Your task to perform on an android device: manage bookmarks in the chrome app Image 0: 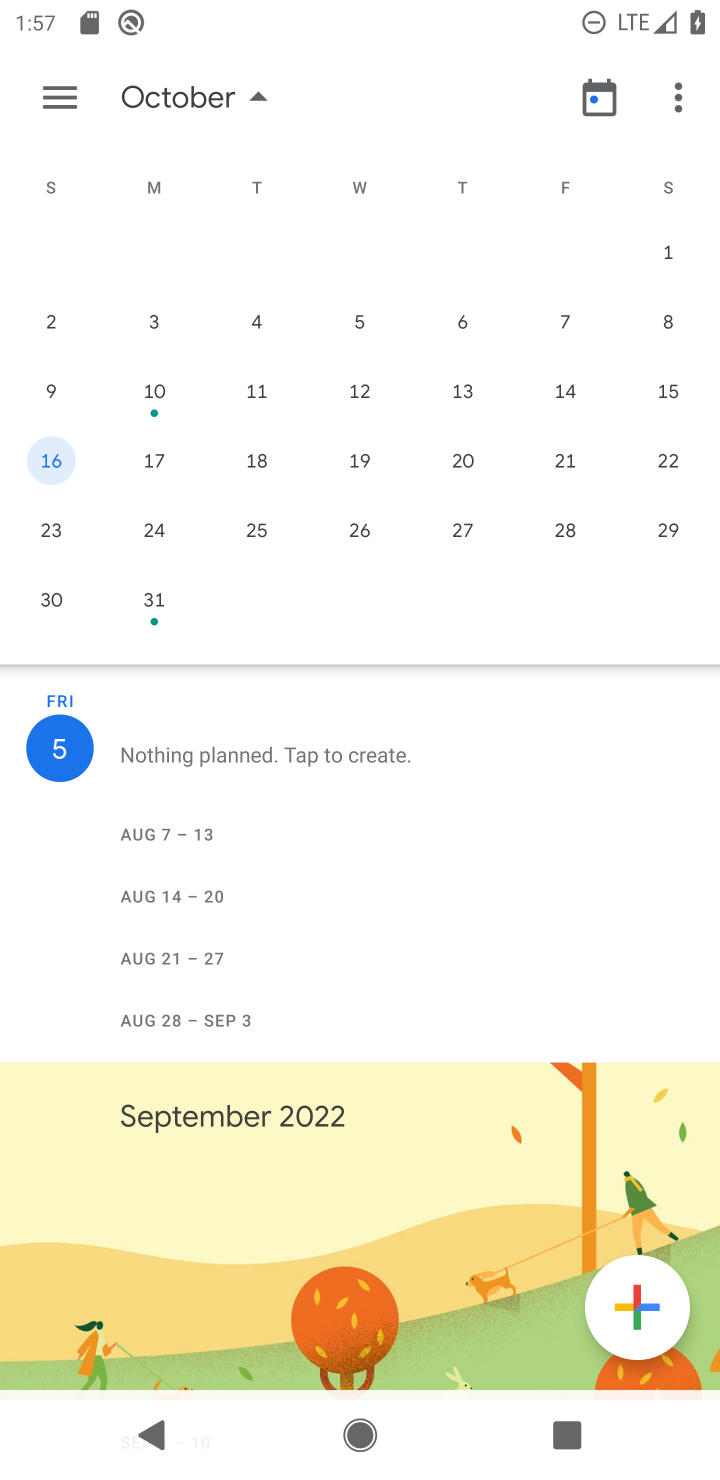
Step 0: press home button
Your task to perform on an android device: manage bookmarks in the chrome app Image 1: 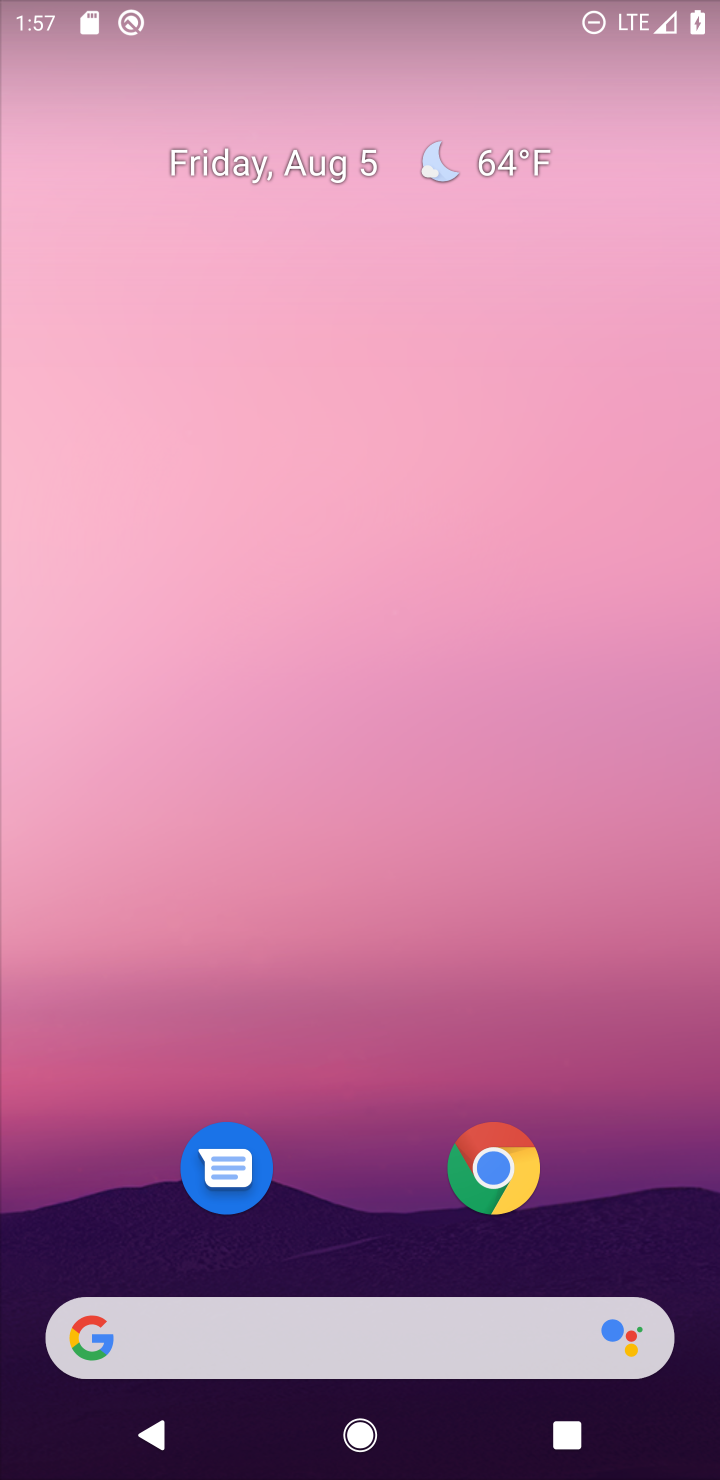
Step 1: drag from (628, 1127) to (518, 8)
Your task to perform on an android device: manage bookmarks in the chrome app Image 2: 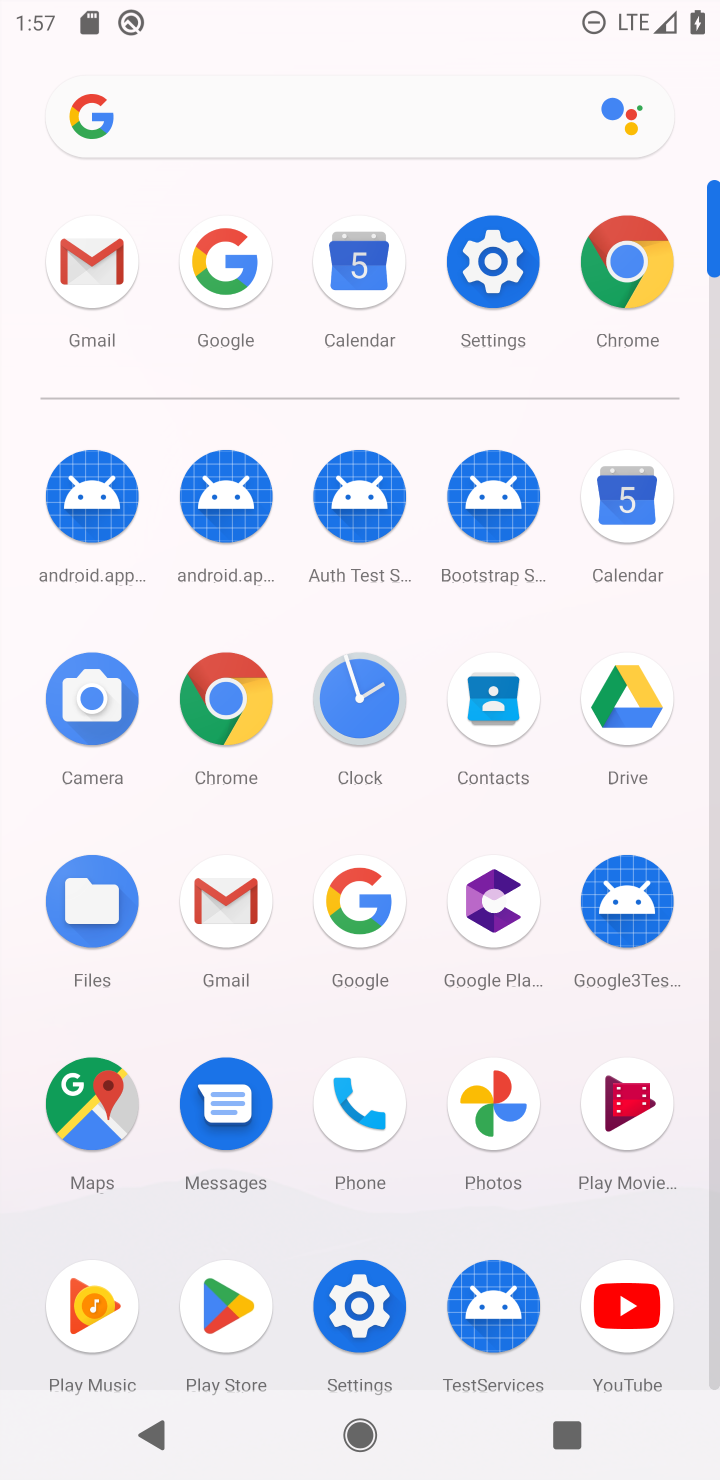
Step 2: click (608, 260)
Your task to perform on an android device: manage bookmarks in the chrome app Image 3: 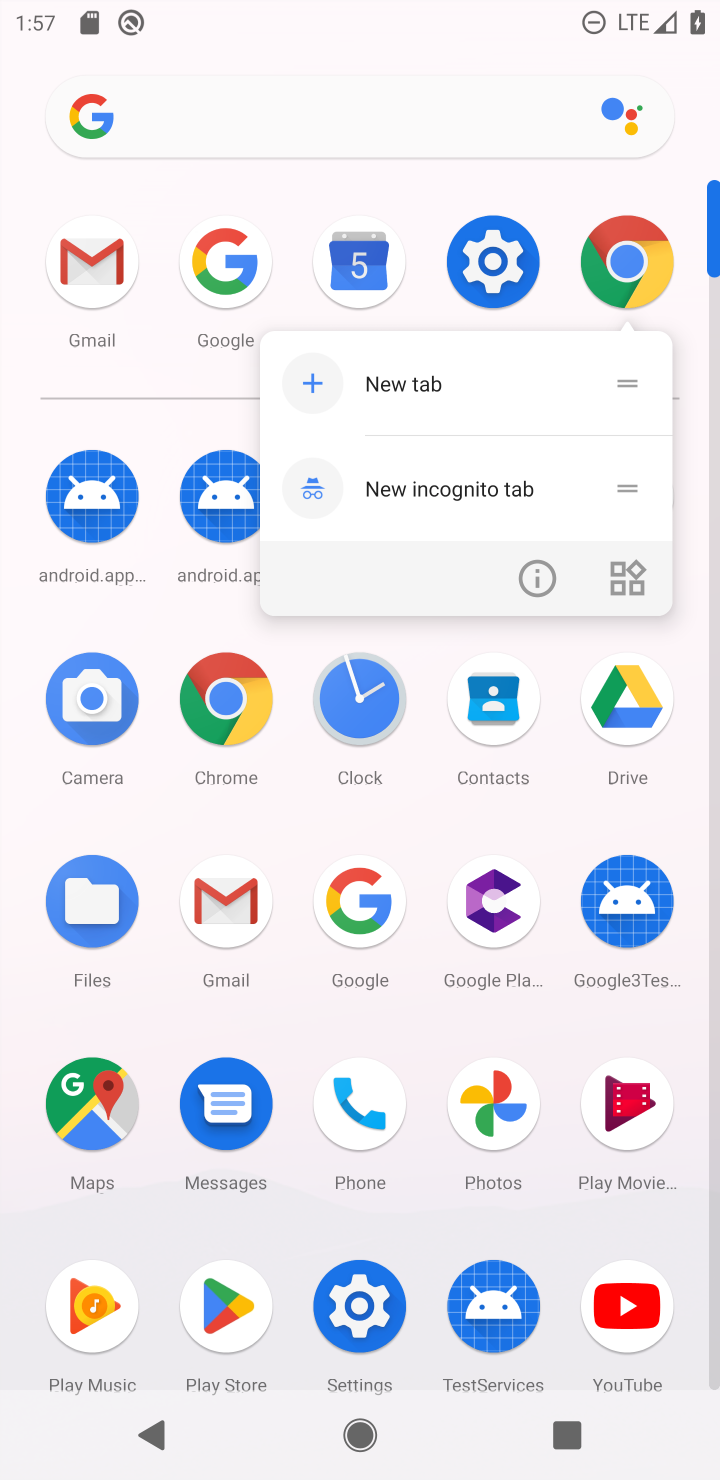
Step 3: click (614, 284)
Your task to perform on an android device: manage bookmarks in the chrome app Image 4: 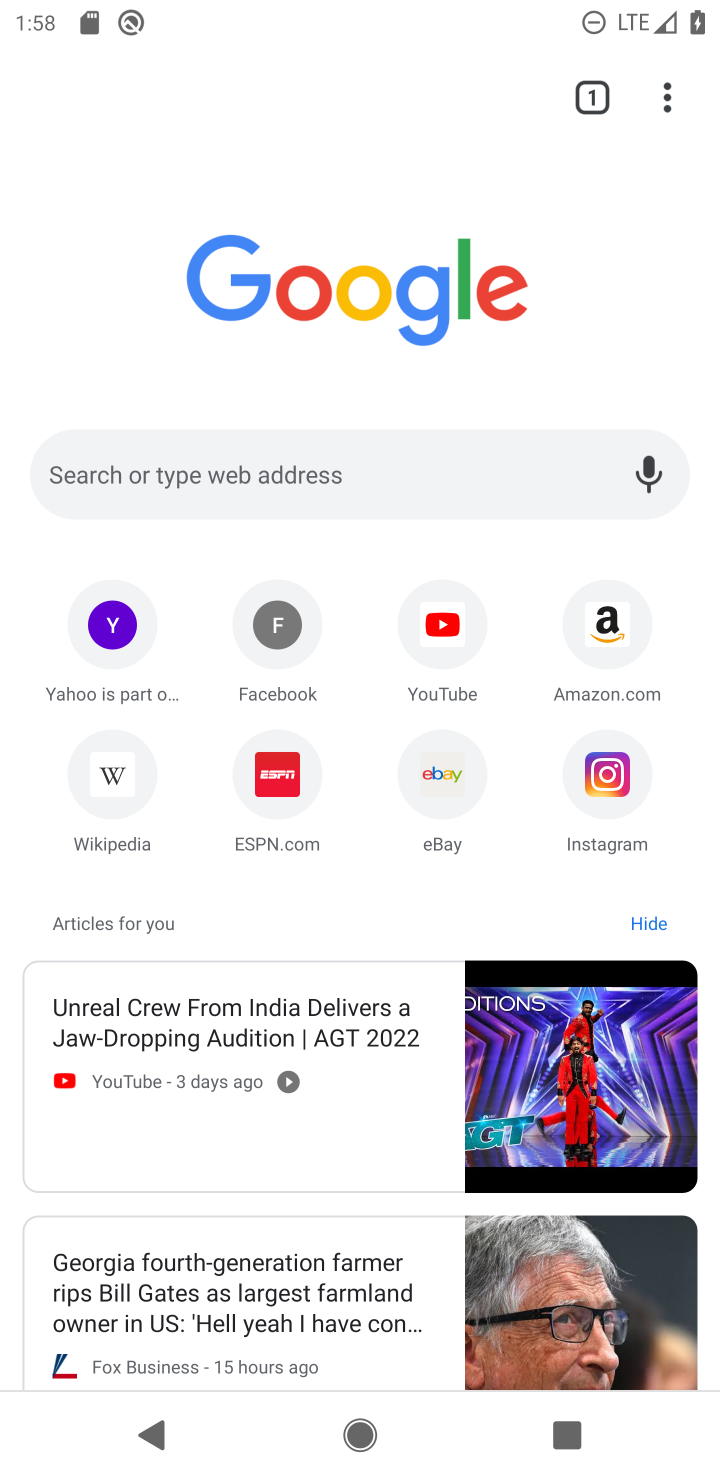
Step 4: task complete